Your task to perform on an android device: Find coffee shops on Maps Image 0: 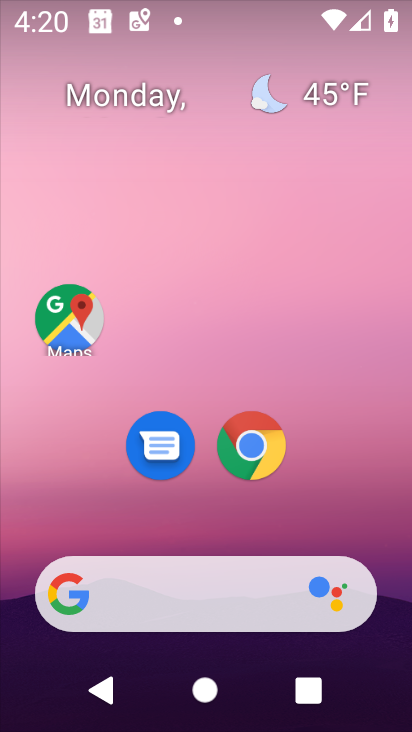
Step 0: click (64, 340)
Your task to perform on an android device: Find coffee shops on Maps Image 1: 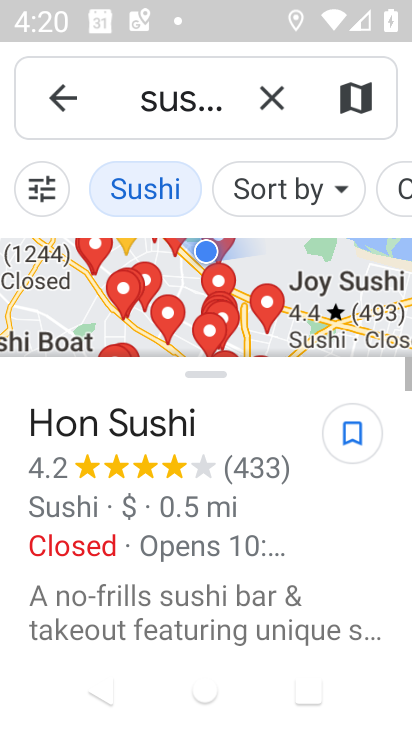
Step 1: click (266, 101)
Your task to perform on an android device: Find coffee shops on Maps Image 2: 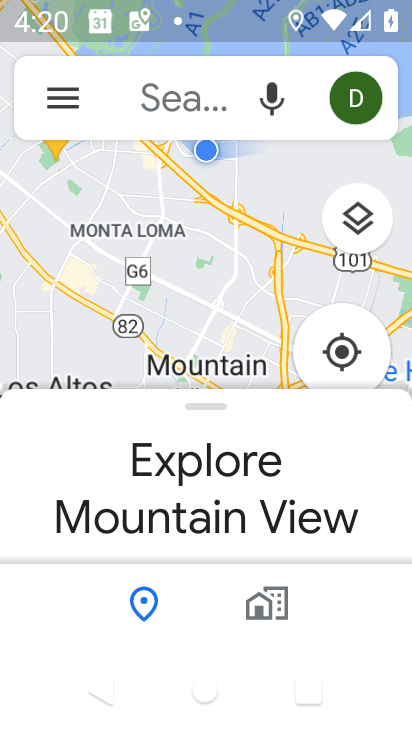
Step 2: click (196, 95)
Your task to perform on an android device: Find coffee shops on Maps Image 3: 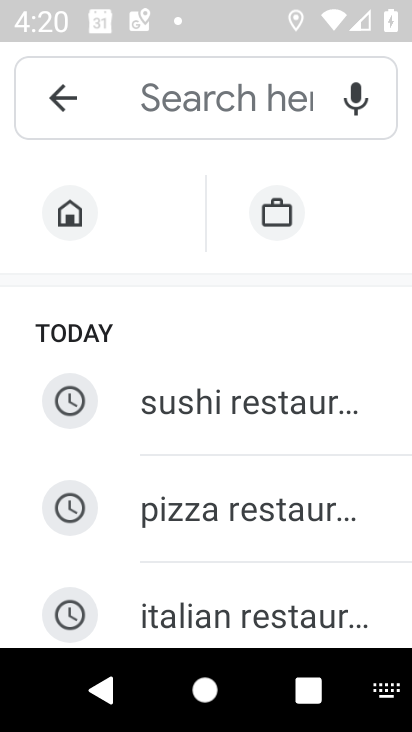
Step 3: type "coffee shops"
Your task to perform on an android device: Find coffee shops on Maps Image 4: 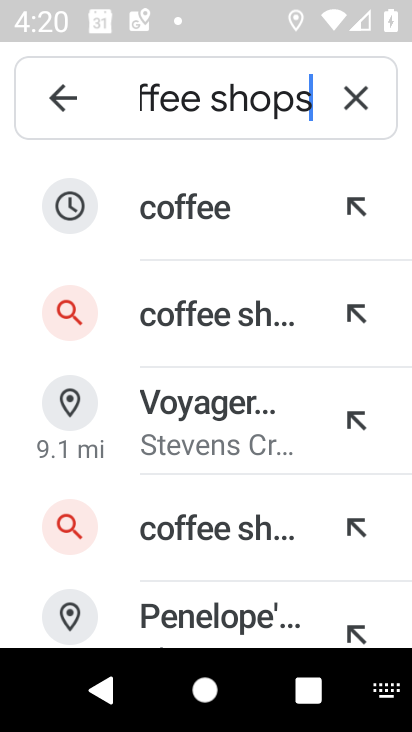
Step 4: click (146, 325)
Your task to perform on an android device: Find coffee shops on Maps Image 5: 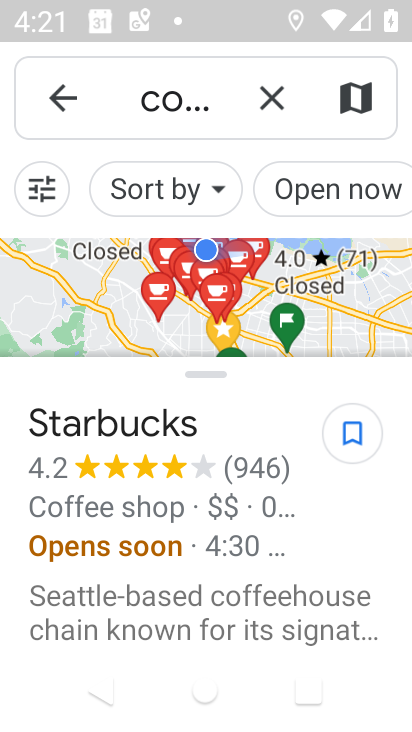
Step 5: task complete